Your task to perform on an android device: change the clock display to digital Image 0: 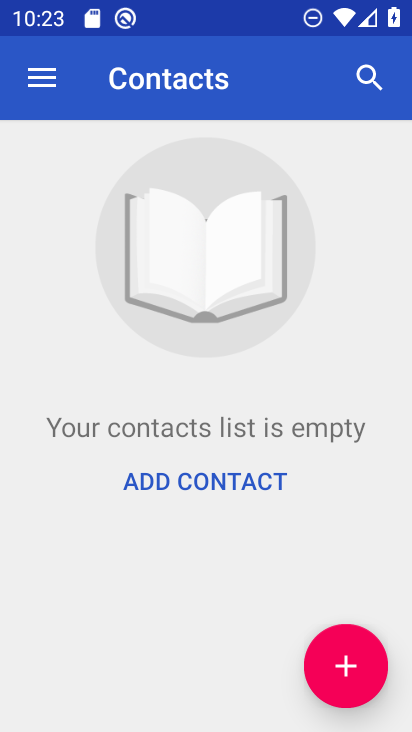
Step 0: press home button
Your task to perform on an android device: change the clock display to digital Image 1: 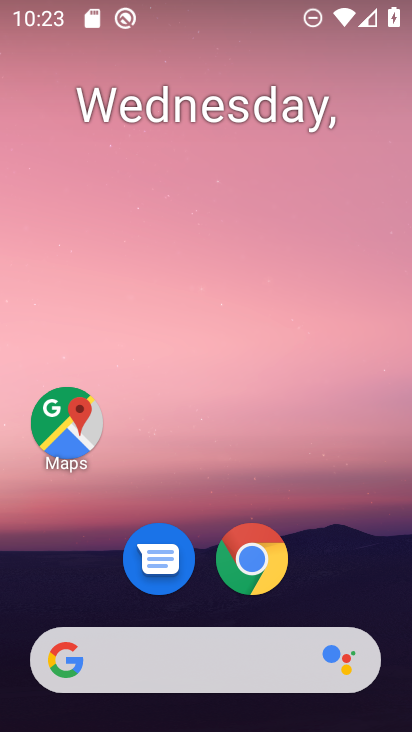
Step 1: drag from (378, 594) to (385, 136)
Your task to perform on an android device: change the clock display to digital Image 2: 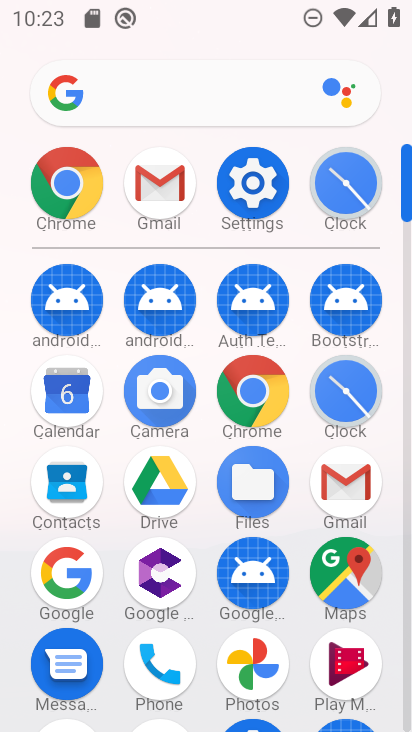
Step 2: click (353, 186)
Your task to perform on an android device: change the clock display to digital Image 3: 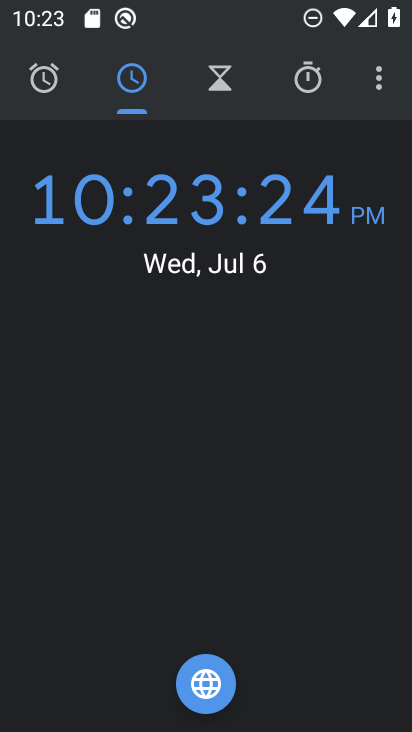
Step 3: click (374, 89)
Your task to perform on an android device: change the clock display to digital Image 4: 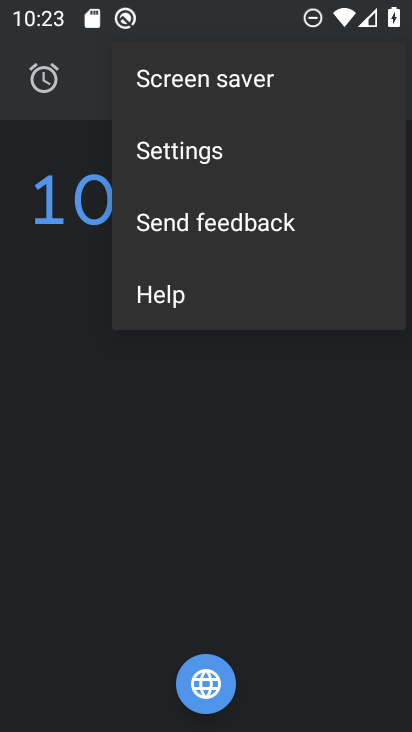
Step 4: click (246, 163)
Your task to perform on an android device: change the clock display to digital Image 5: 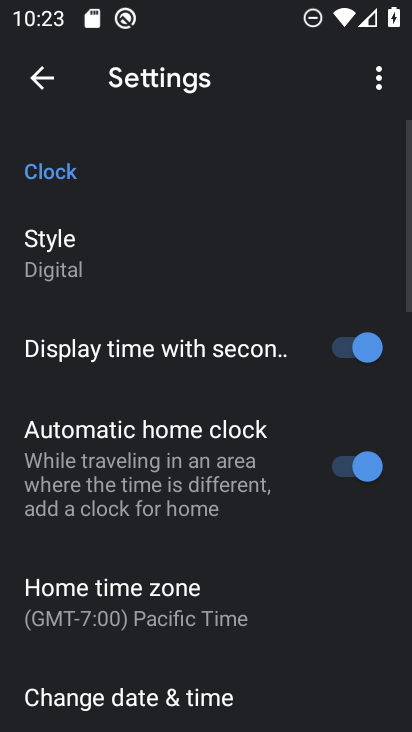
Step 5: drag from (299, 520) to (304, 384)
Your task to perform on an android device: change the clock display to digital Image 6: 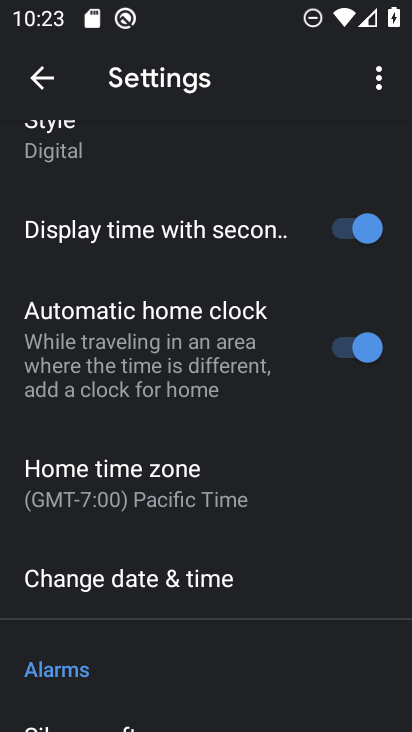
Step 6: drag from (298, 551) to (316, 412)
Your task to perform on an android device: change the clock display to digital Image 7: 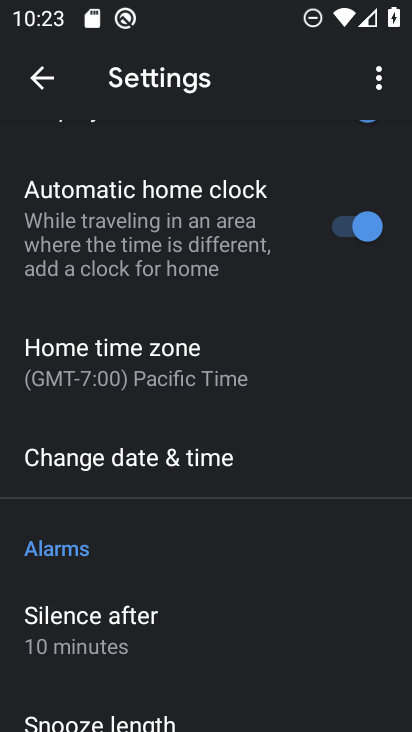
Step 7: drag from (311, 614) to (306, 434)
Your task to perform on an android device: change the clock display to digital Image 8: 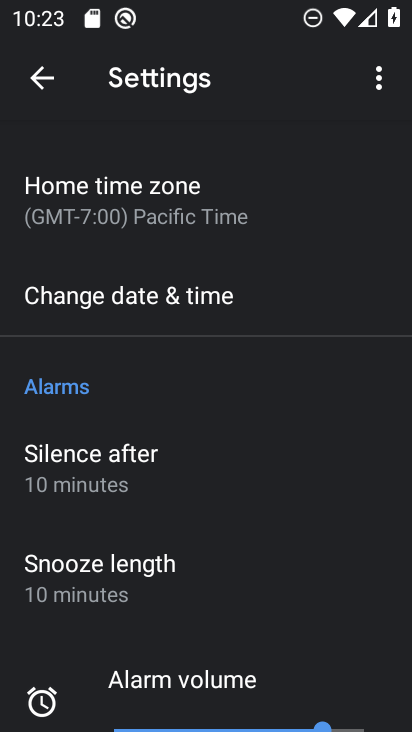
Step 8: drag from (310, 618) to (309, 442)
Your task to perform on an android device: change the clock display to digital Image 9: 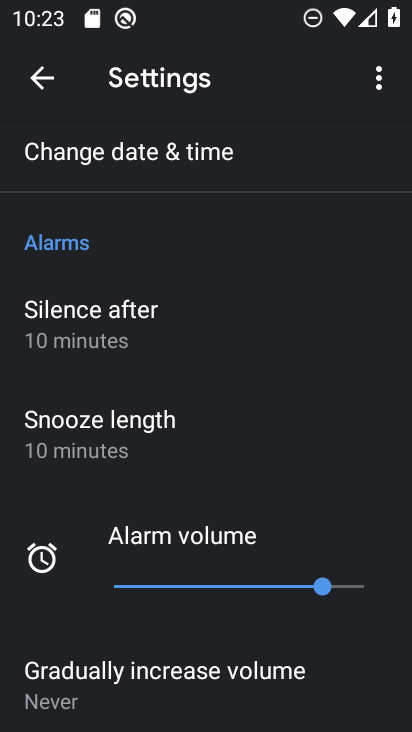
Step 9: drag from (341, 671) to (343, 492)
Your task to perform on an android device: change the clock display to digital Image 10: 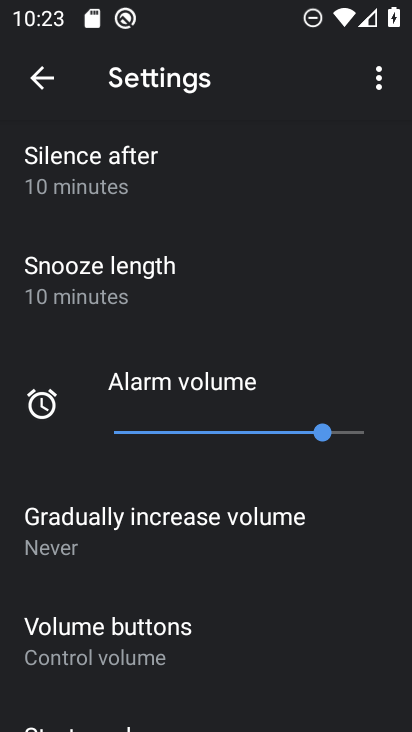
Step 10: drag from (356, 634) to (360, 506)
Your task to perform on an android device: change the clock display to digital Image 11: 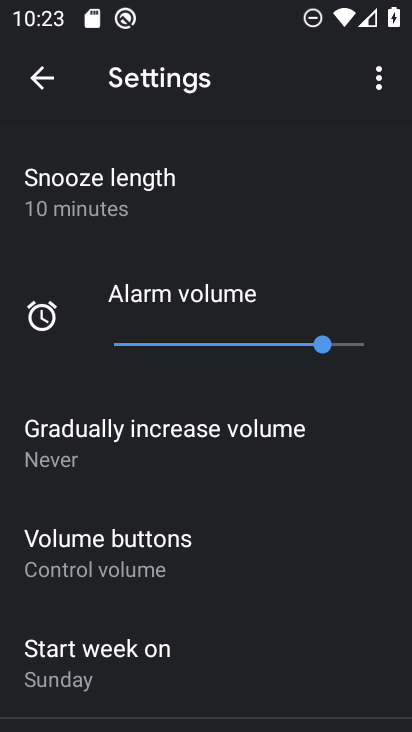
Step 11: drag from (351, 394) to (361, 502)
Your task to perform on an android device: change the clock display to digital Image 12: 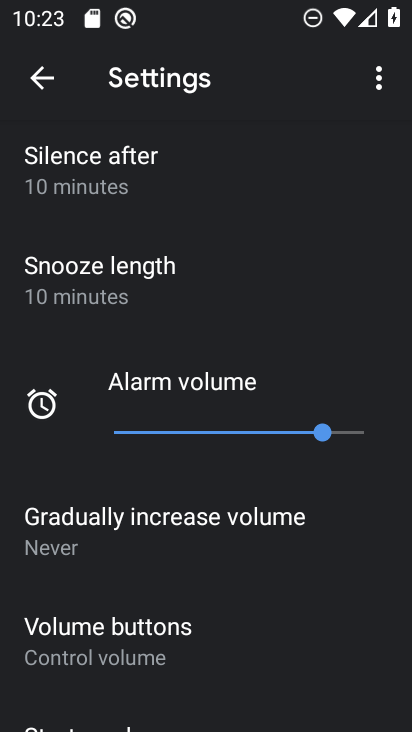
Step 12: drag from (350, 326) to (368, 451)
Your task to perform on an android device: change the clock display to digital Image 13: 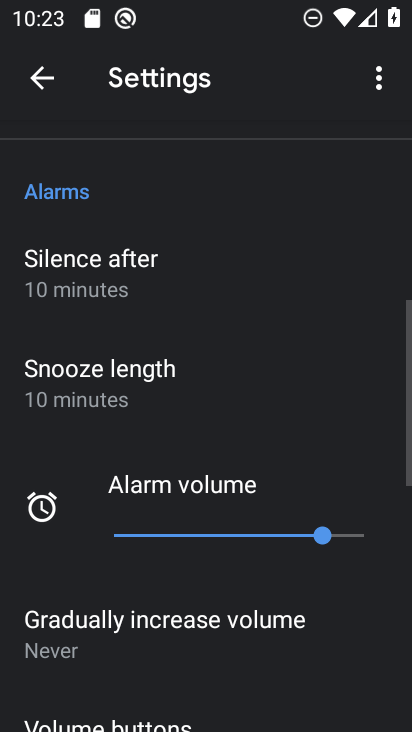
Step 13: drag from (351, 284) to (350, 455)
Your task to perform on an android device: change the clock display to digital Image 14: 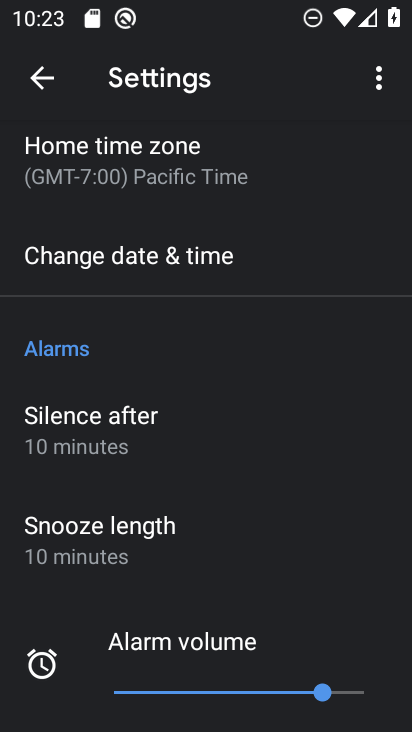
Step 14: drag from (346, 238) to (345, 402)
Your task to perform on an android device: change the clock display to digital Image 15: 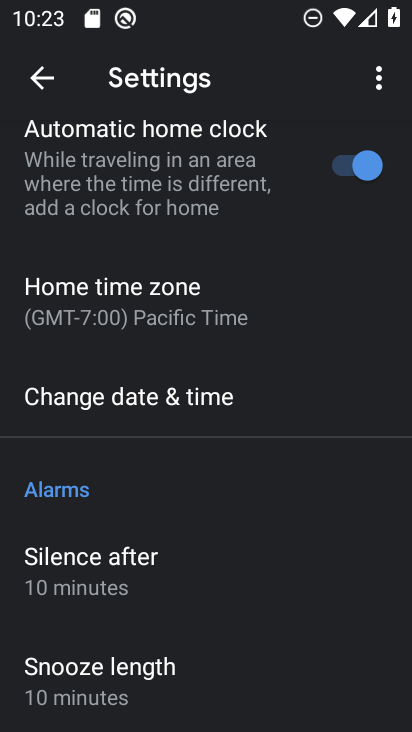
Step 15: drag from (337, 235) to (341, 404)
Your task to perform on an android device: change the clock display to digital Image 16: 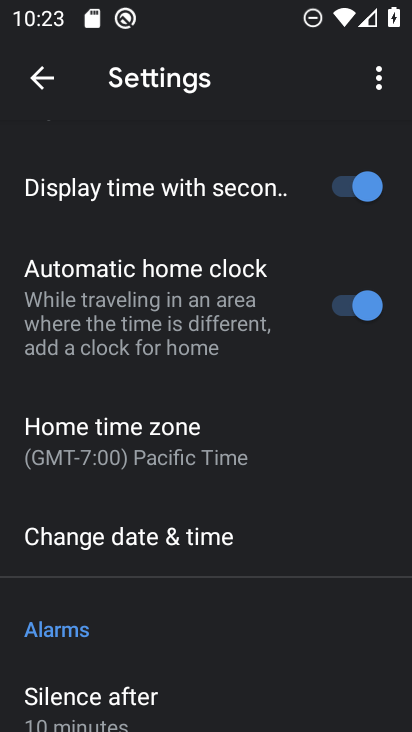
Step 16: drag from (294, 163) to (295, 382)
Your task to perform on an android device: change the clock display to digital Image 17: 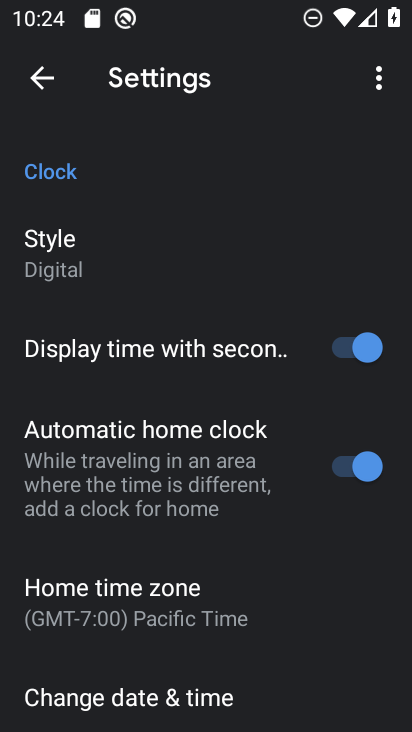
Step 17: drag from (268, 198) to (270, 370)
Your task to perform on an android device: change the clock display to digital Image 18: 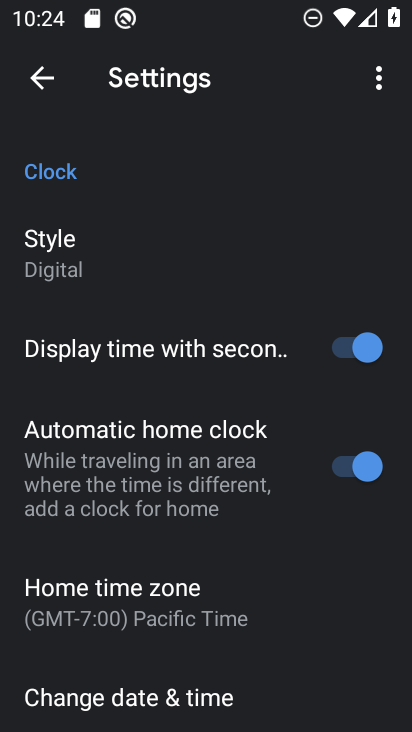
Step 18: click (66, 275)
Your task to perform on an android device: change the clock display to digital Image 19: 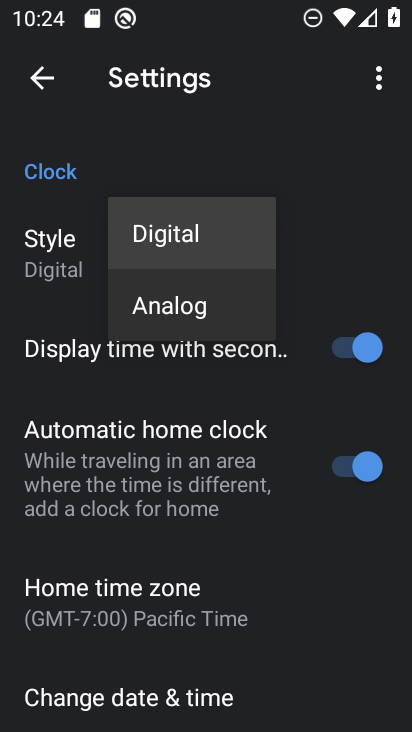
Step 19: task complete